Your task to perform on an android device: turn off priority inbox in the gmail app Image 0: 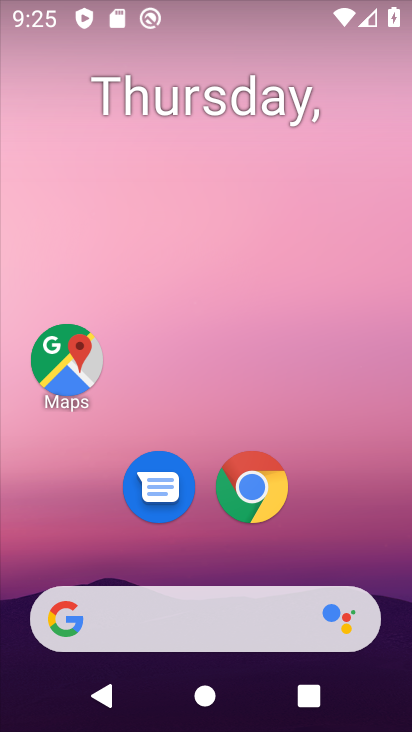
Step 0: drag from (347, 501) to (128, 155)
Your task to perform on an android device: turn off priority inbox in the gmail app Image 1: 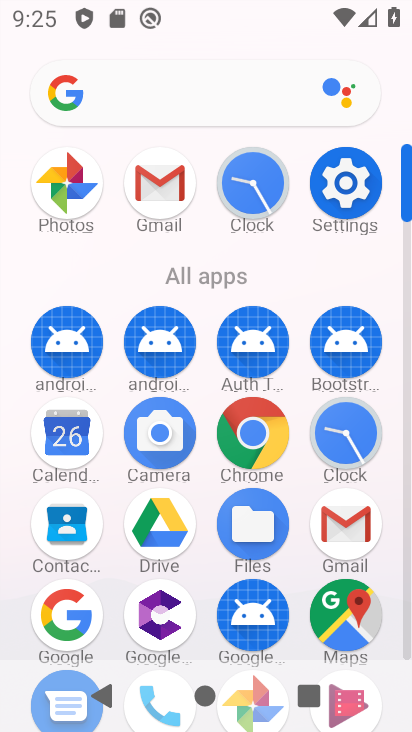
Step 1: click (353, 531)
Your task to perform on an android device: turn off priority inbox in the gmail app Image 2: 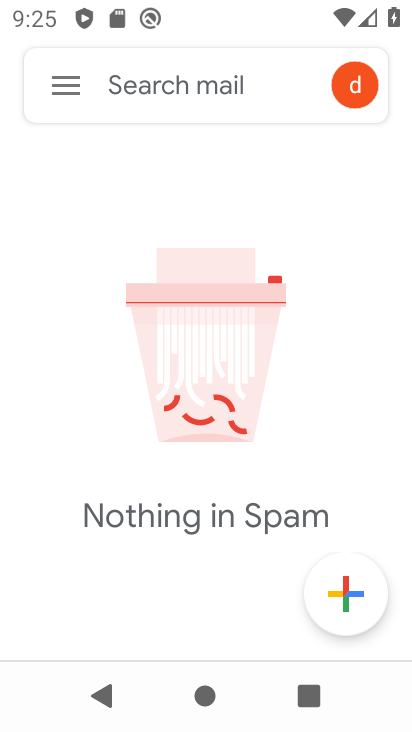
Step 2: click (66, 77)
Your task to perform on an android device: turn off priority inbox in the gmail app Image 3: 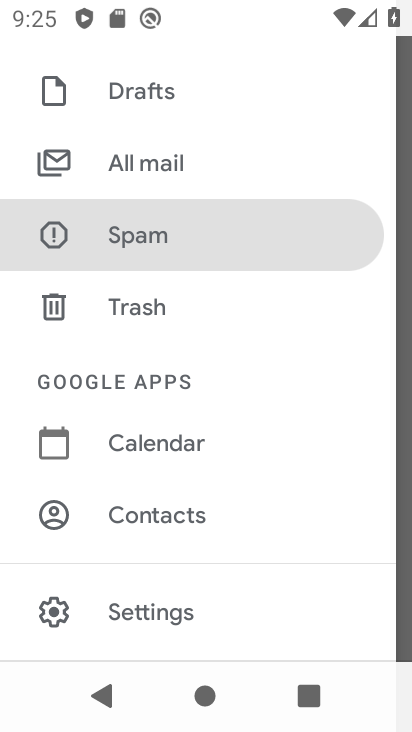
Step 3: click (128, 613)
Your task to perform on an android device: turn off priority inbox in the gmail app Image 4: 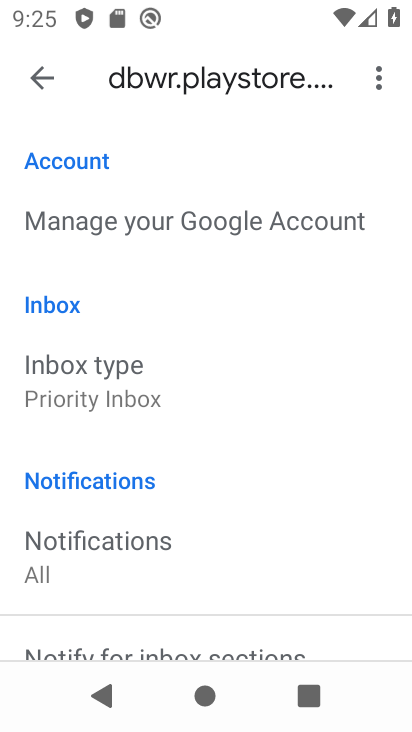
Step 4: click (97, 405)
Your task to perform on an android device: turn off priority inbox in the gmail app Image 5: 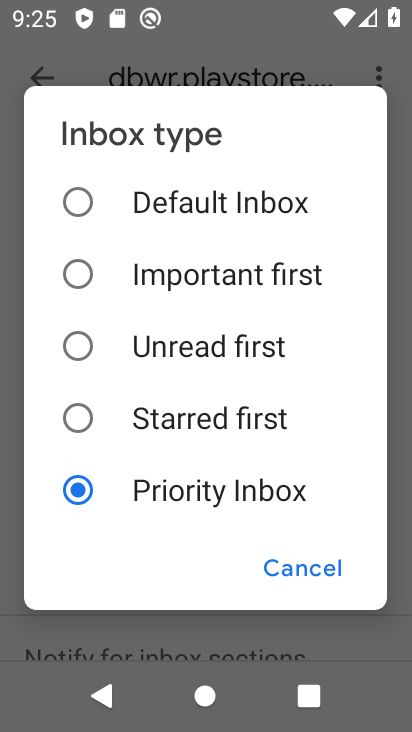
Step 5: click (80, 201)
Your task to perform on an android device: turn off priority inbox in the gmail app Image 6: 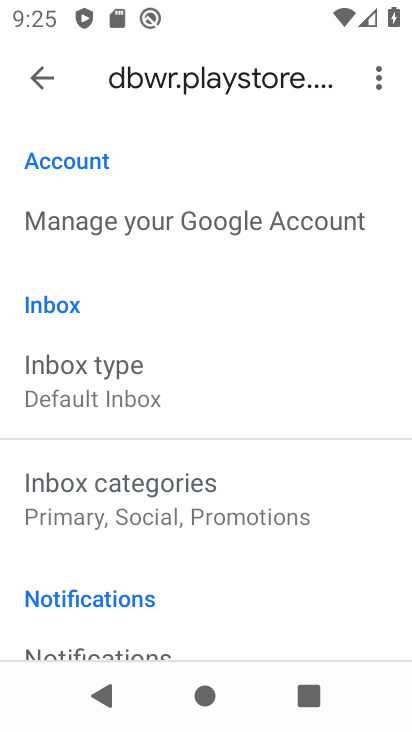
Step 6: task complete